Your task to perform on an android device: What's the weather today? Image 0: 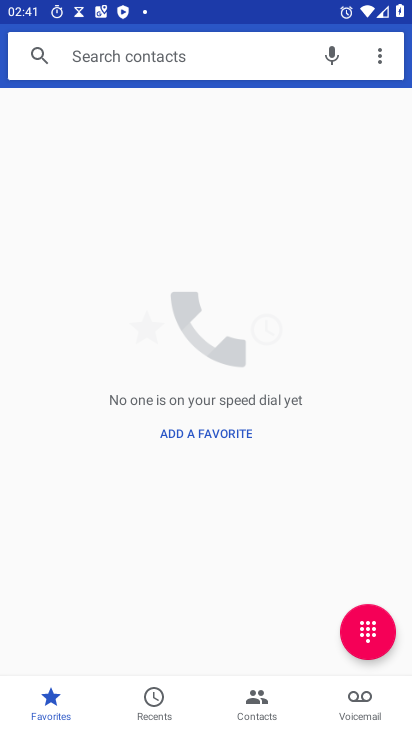
Step 0: press home button
Your task to perform on an android device: What's the weather today? Image 1: 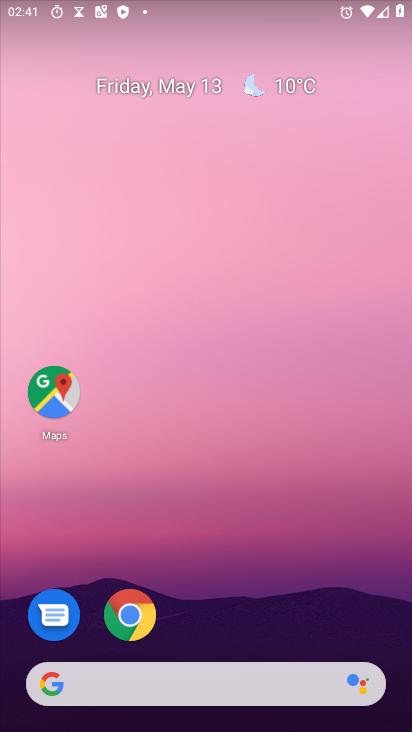
Step 1: click (126, 610)
Your task to perform on an android device: What's the weather today? Image 2: 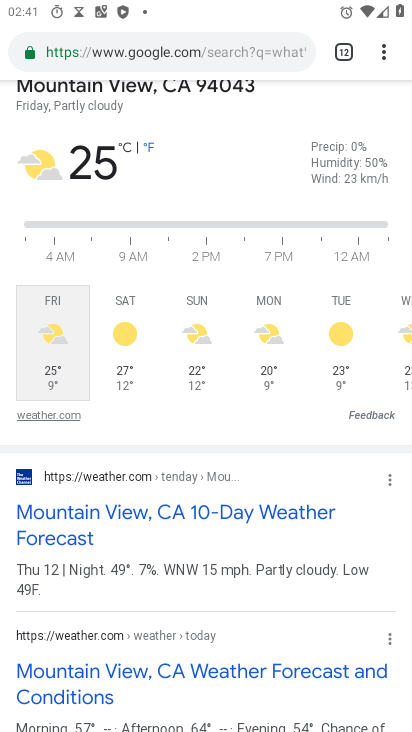
Step 2: task complete